Your task to perform on an android device: Go to Android settings Image 0: 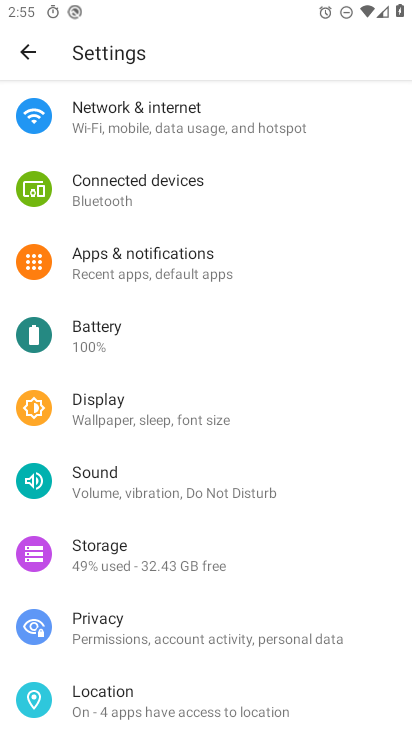
Step 0: press home button
Your task to perform on an android device: Go to Android settings Image 1: 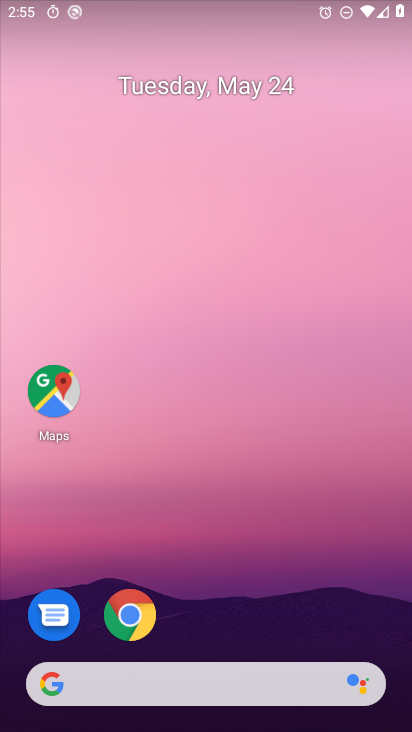
Step 1: drag from (195, 663) to (195, 289)
Your task to perform on an android device: Go to Android settings Image 2: 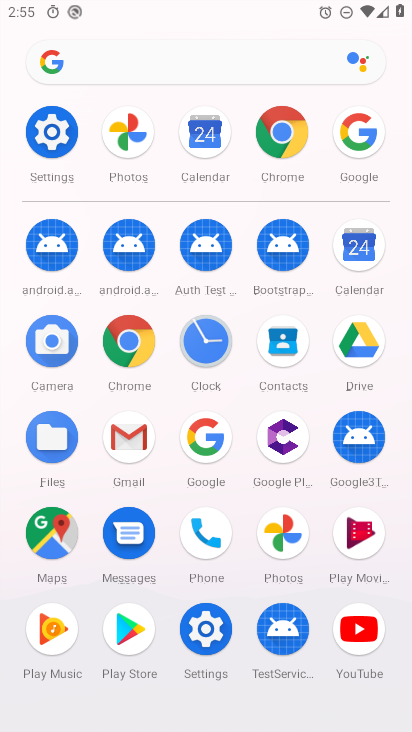
Step 2: click (40, 141)
Your task to perform on an android device: Go to Android settings Image 3: 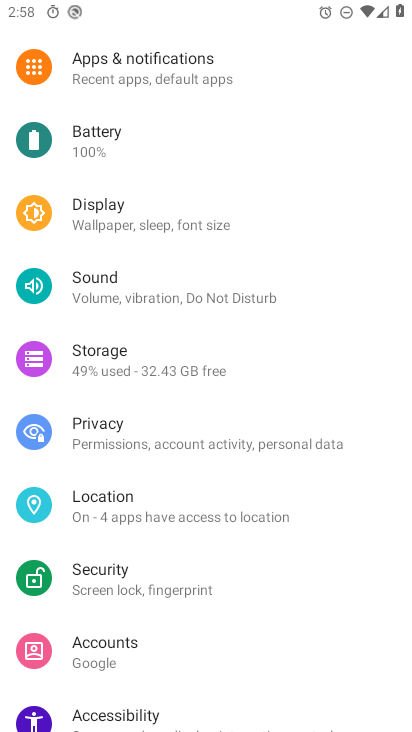
Step 3: task complete